Your task to perform on an android device: change the clock style Image 0: 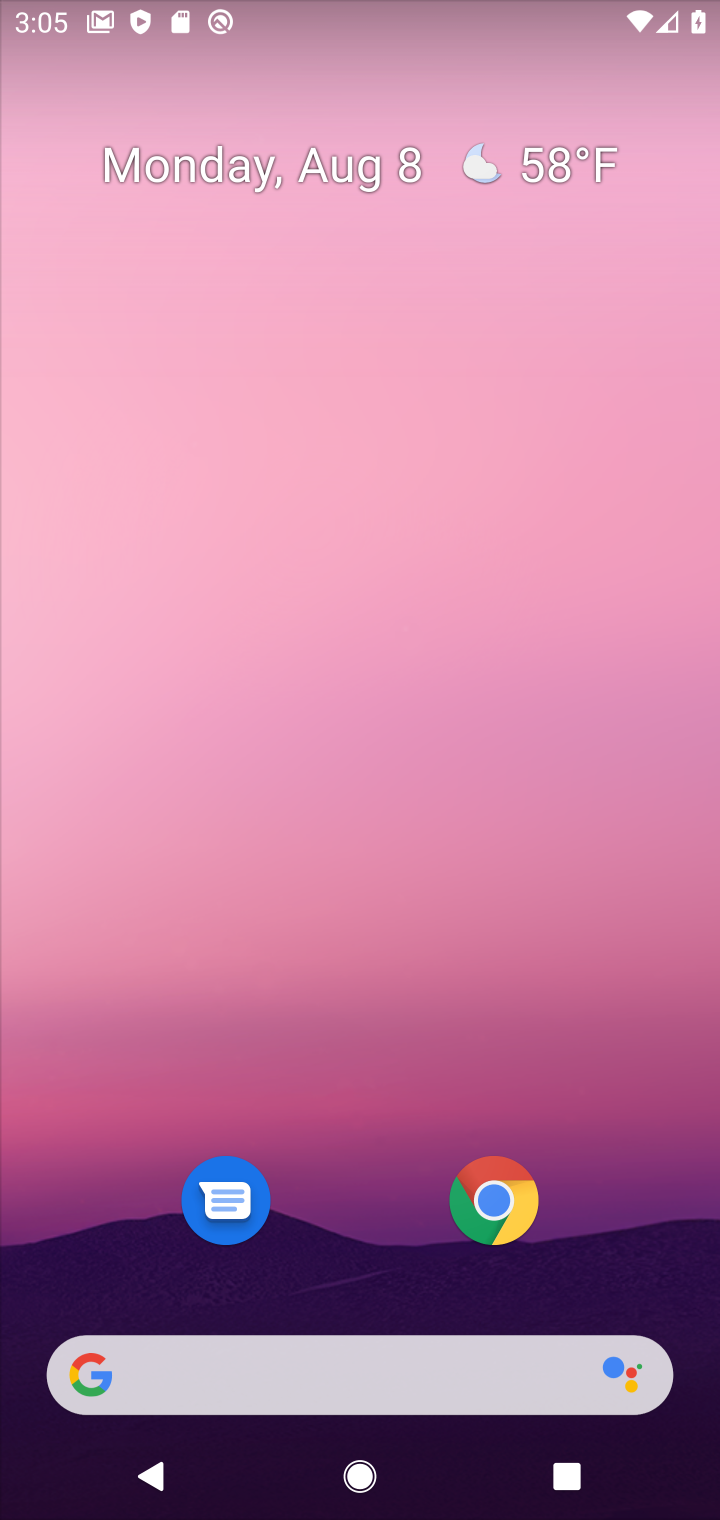
Step 0: drag from (504, 500) to (460, 307)
Your task to perform on an android device: change the clock style Image 1: 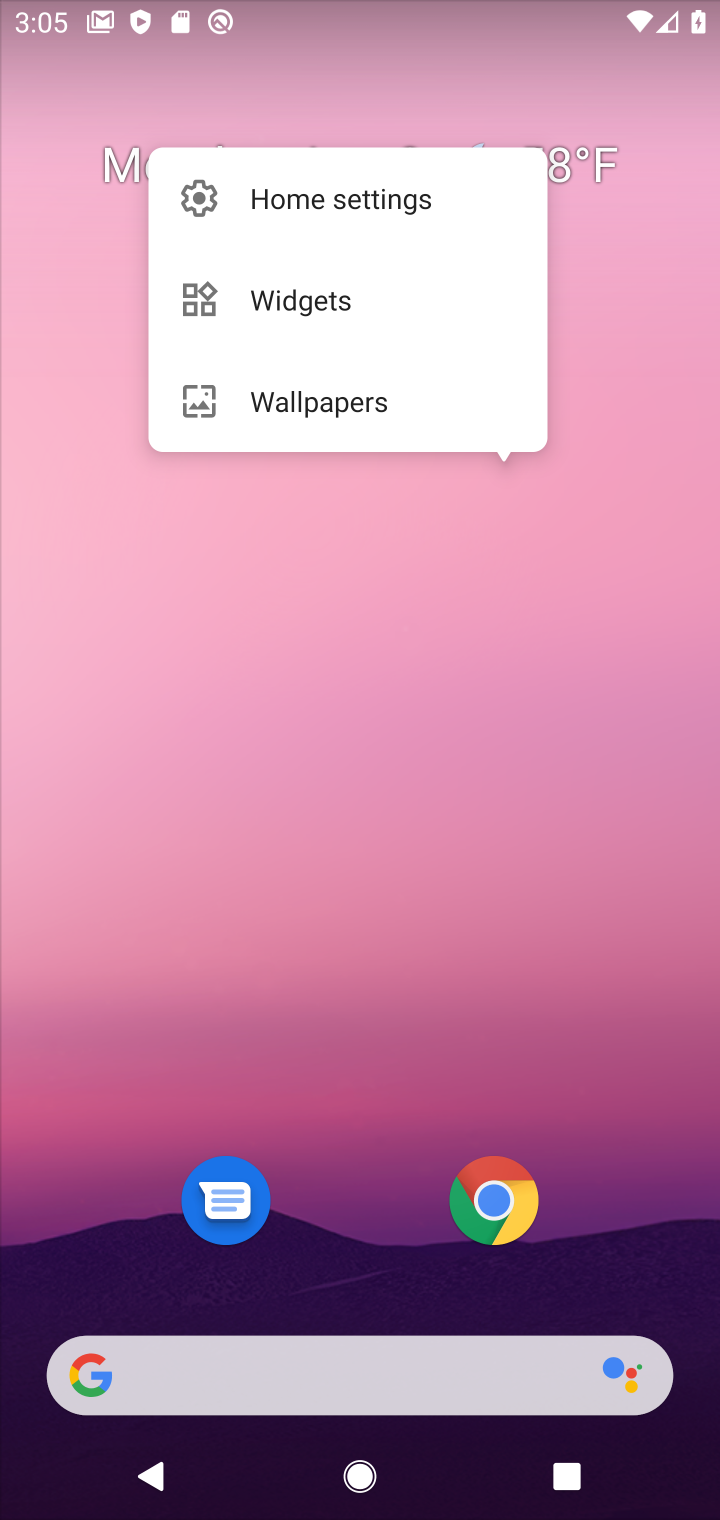
Step 1: click (654, 1122)
Your task to perform on an android device: change the clock style Image 2: 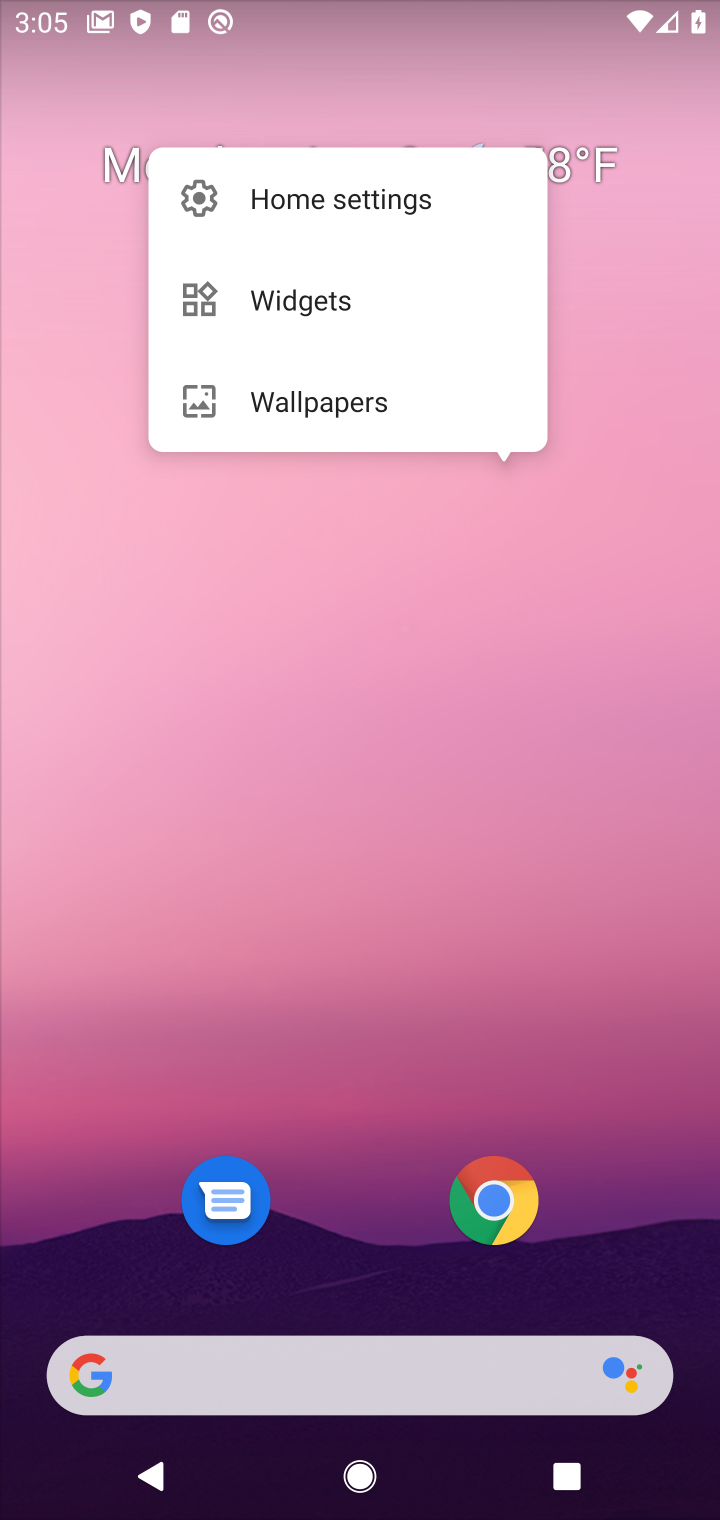
Step 2: drag from (654, 1122) to (257, 71)
Your task to perform on an android device: change the clock style Image 3: 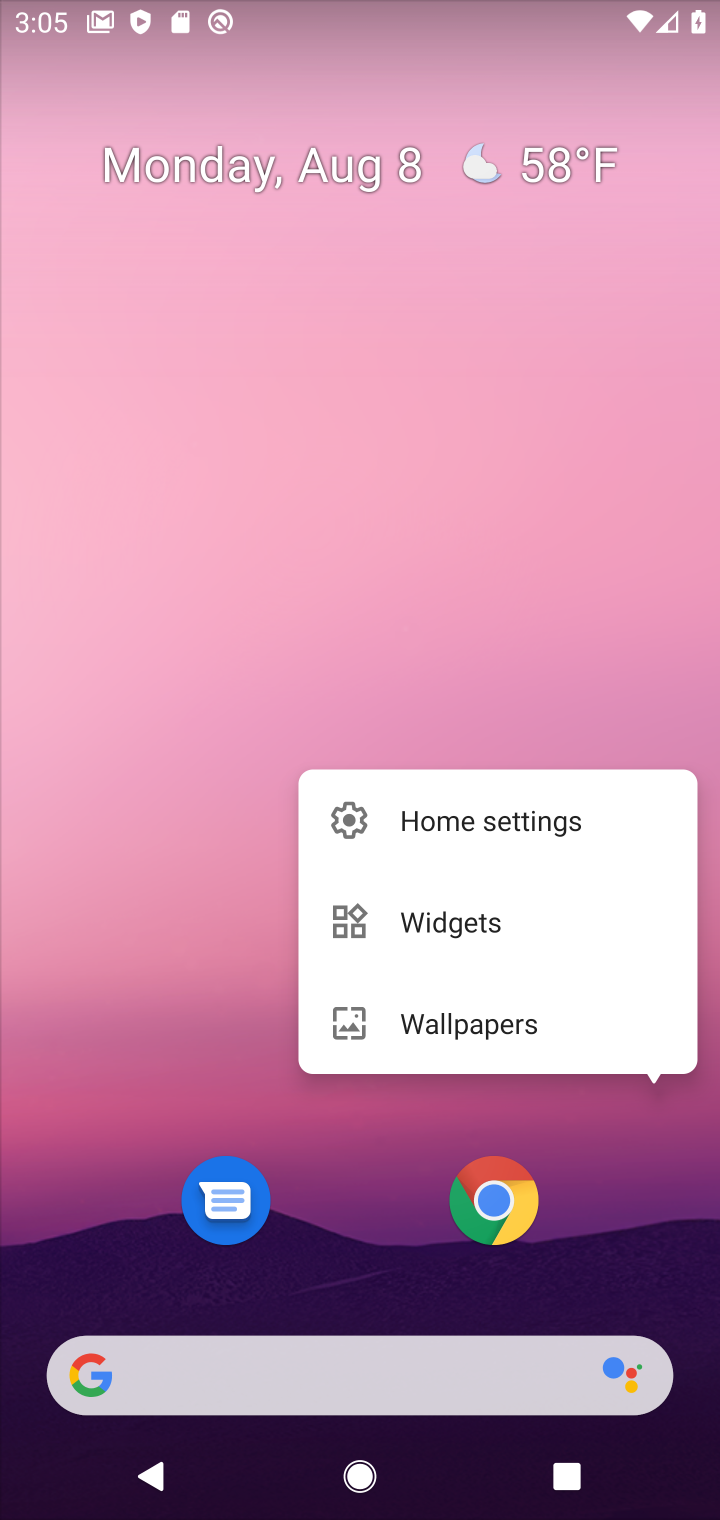
Step 3: click (305, 688)
Your task to perform on an android device: change the clock style Image 4: 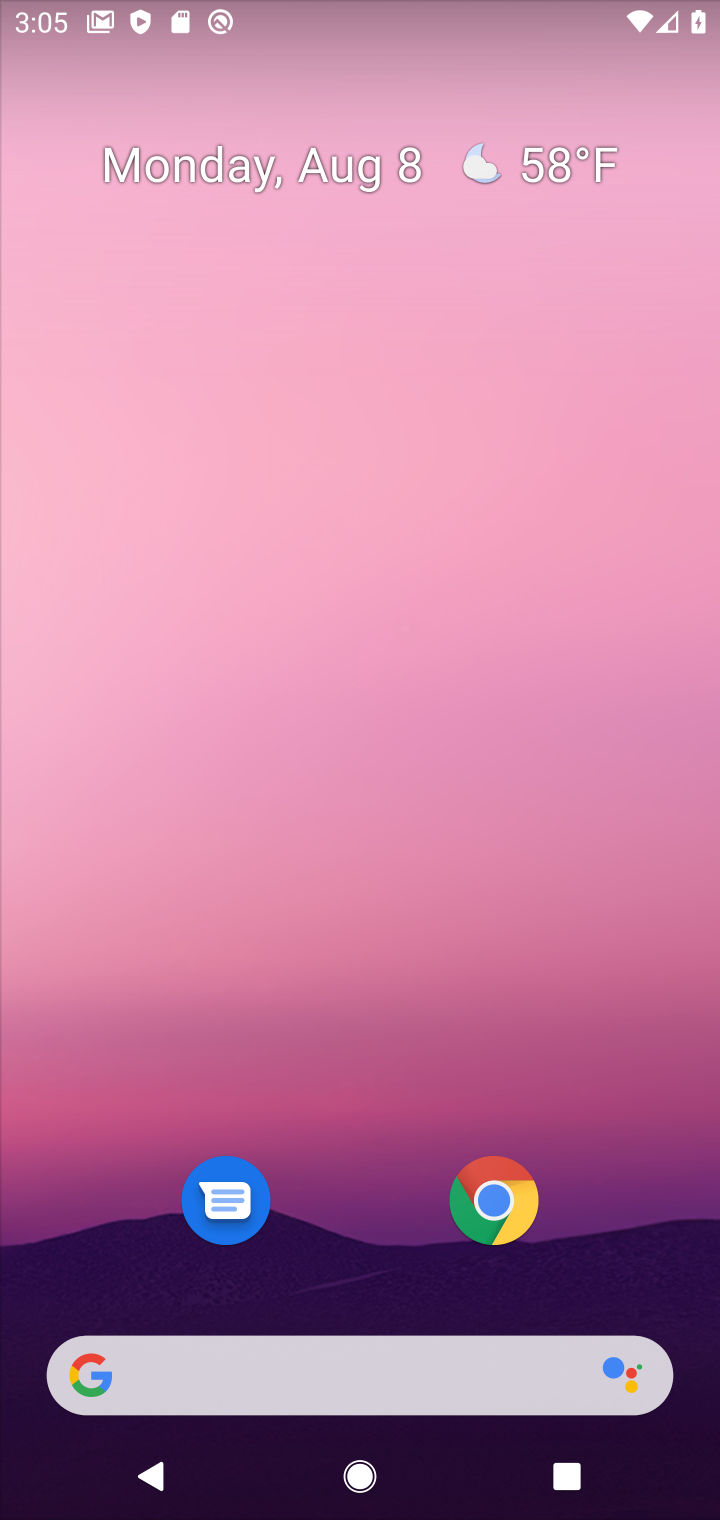
Step 4: drag from (357, 916) to (311, 236)
Your task to perform on an android device: change the clock style Image 5: 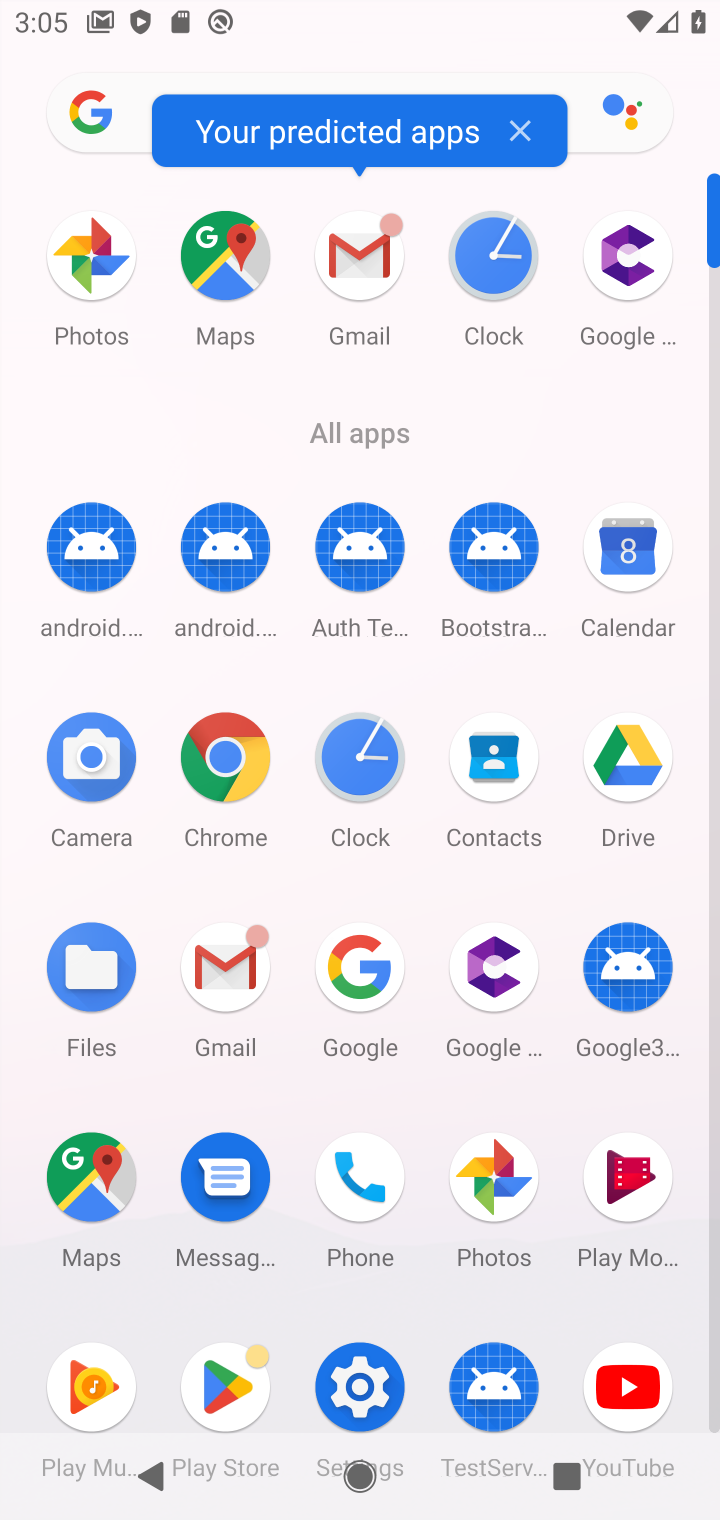
Step 5: click (375, 764)
Your task to perform on an android device: change the clock style Image 6: 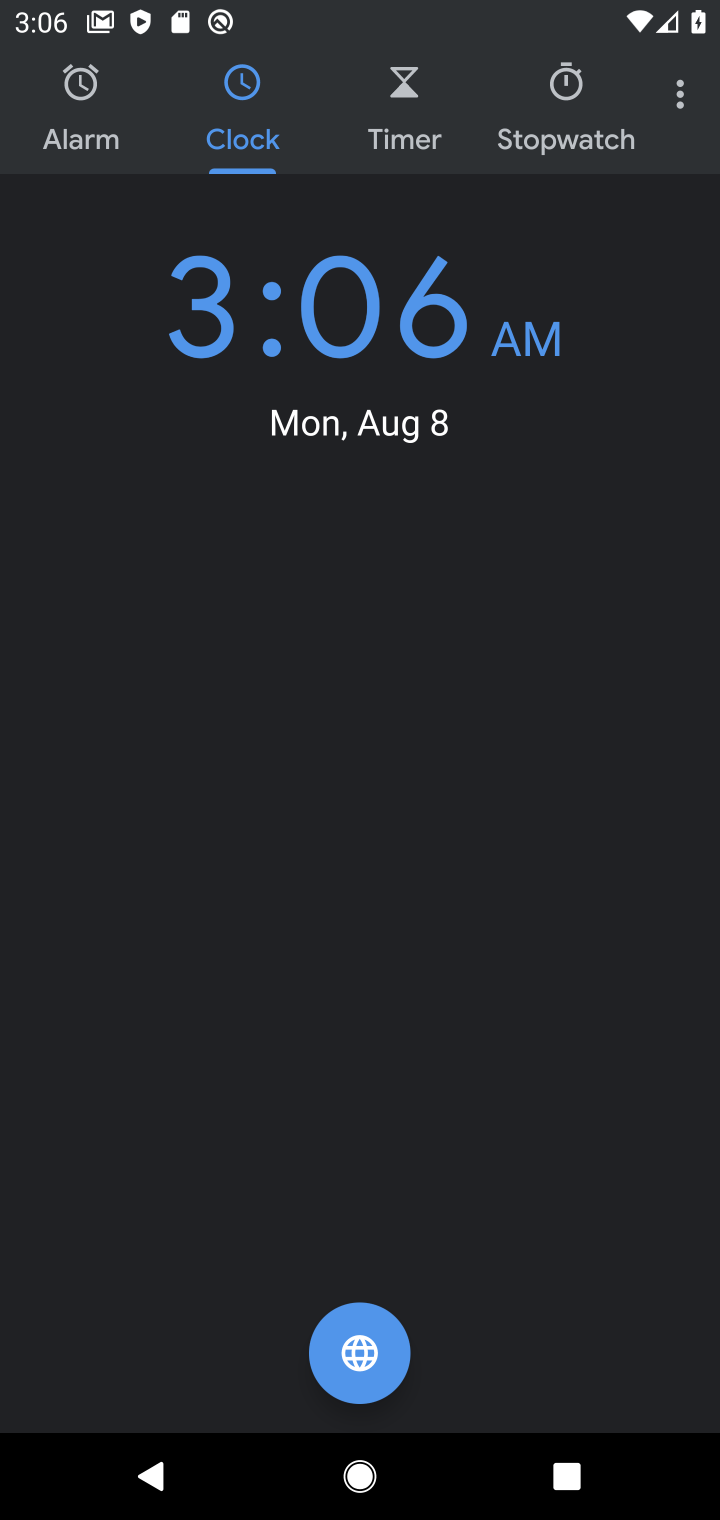
Step 6: click (695, 119)
Your task to perform on an android device: change the clock style Image 7: 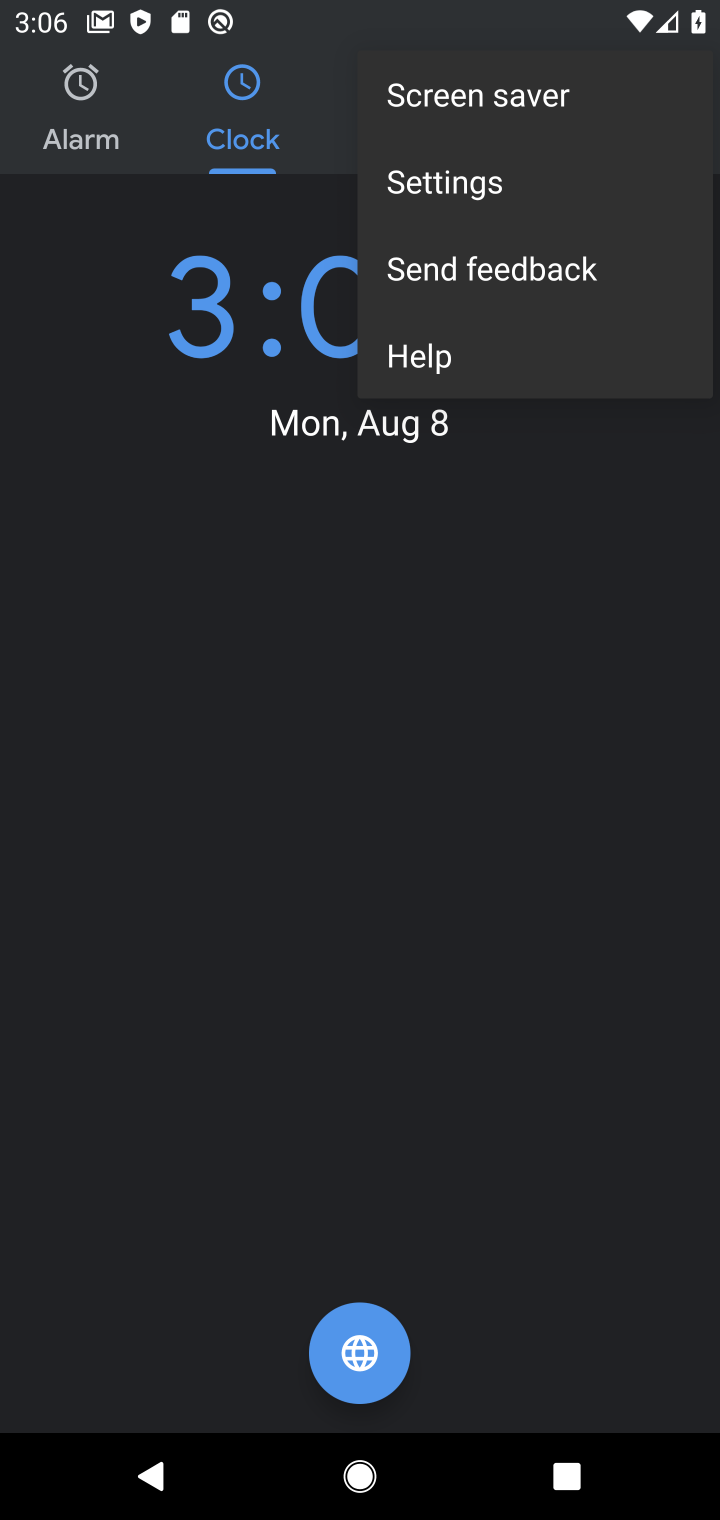
Step 7: click (456, 203)
Your task to perform on an android device: change the clock style Image 8: 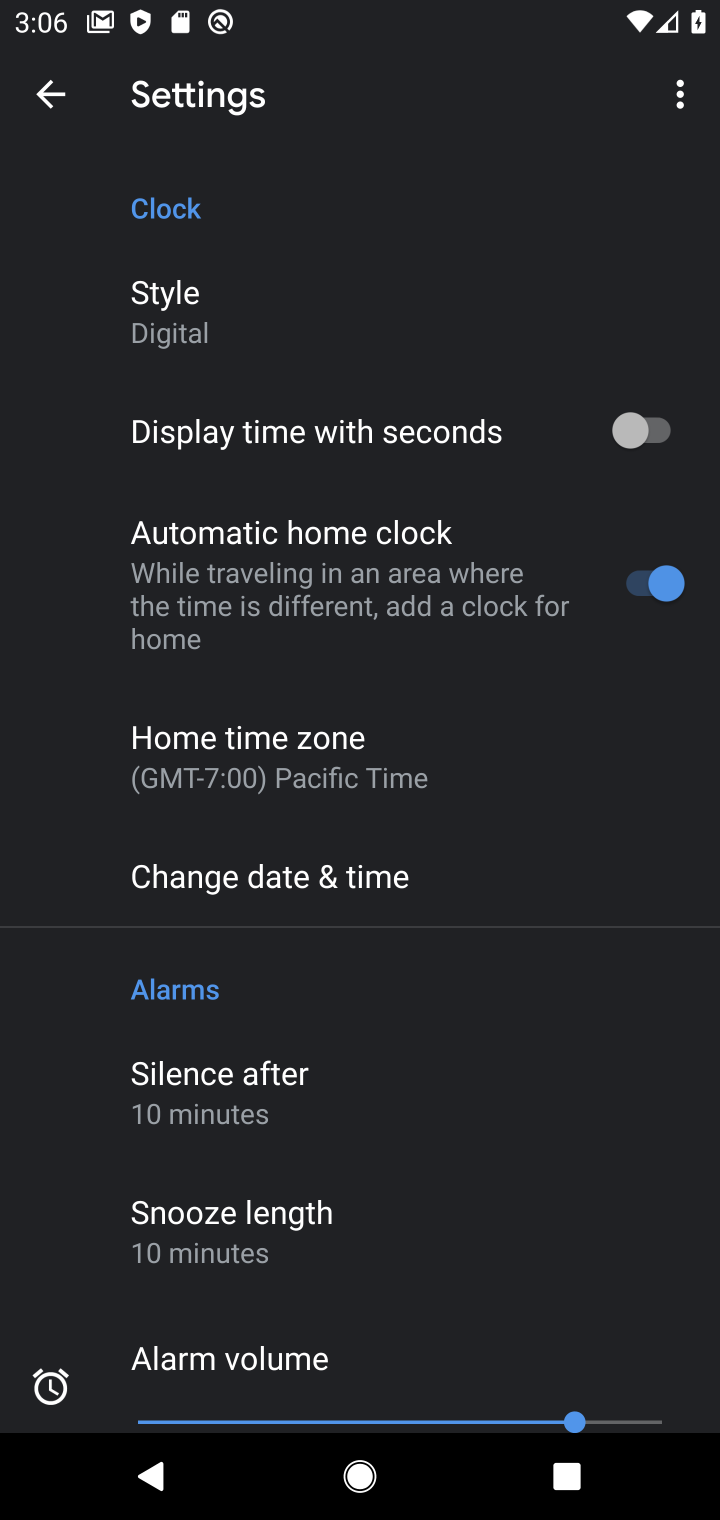
Step 8: click (265, 309)
Your task to perform on an android device: change the clock style Image 9: 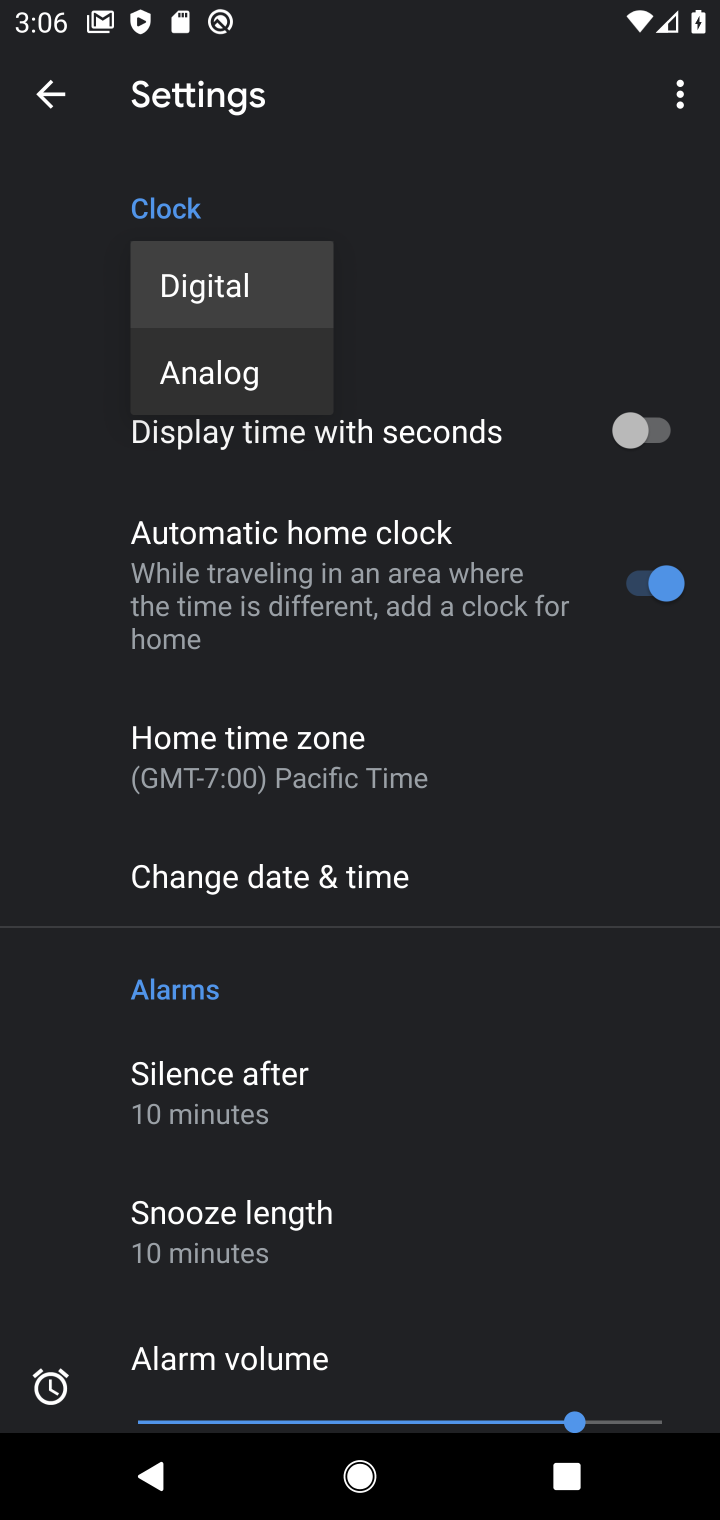
Step 9: click (284, 384)
Your task to perform on an android device: change the clock style Image 10: 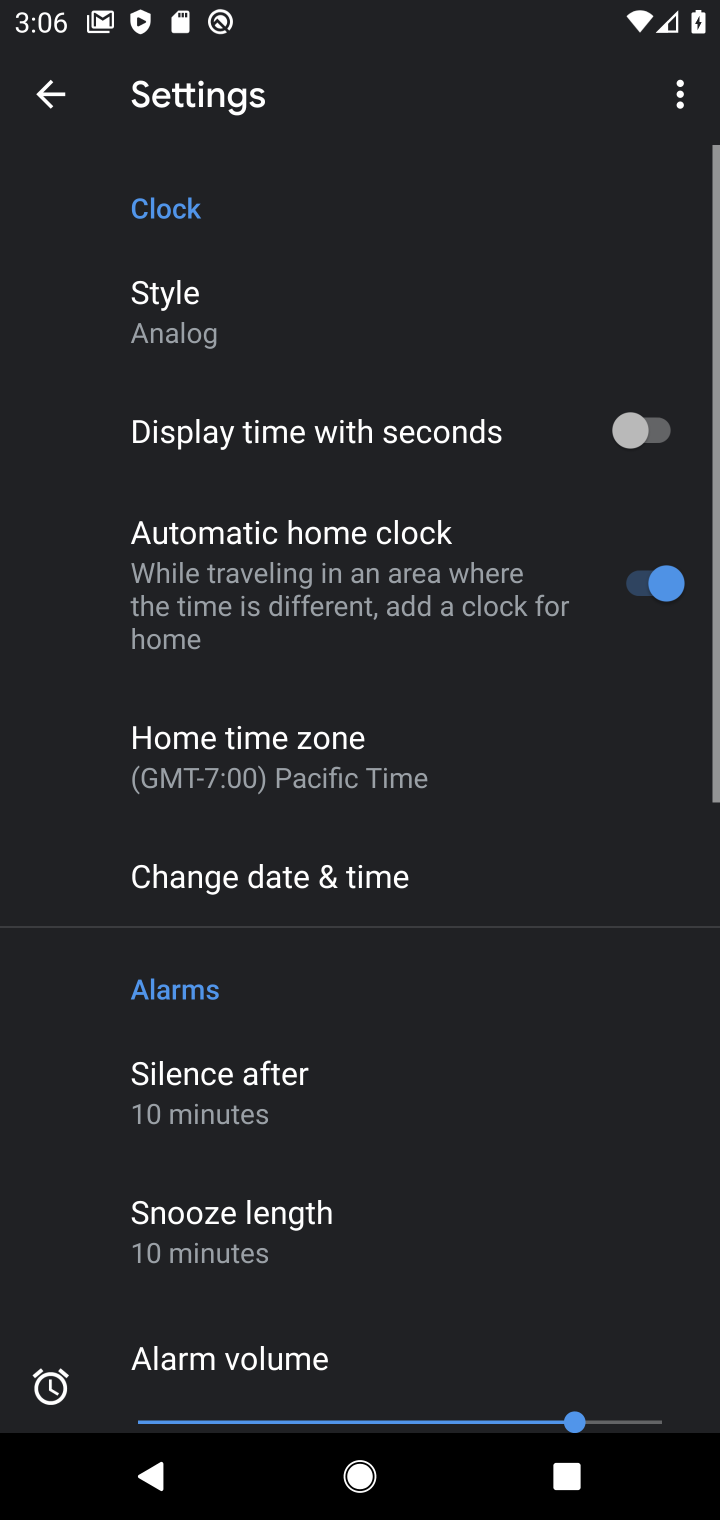
Step 10: task complete